Your task to perform on an android device: check data usage Image 0: 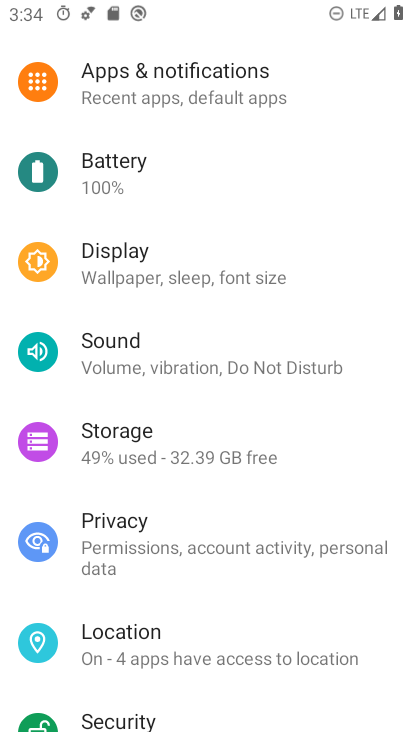
Step 0: drag from (233, 151) to (216, 614)
Your task to perform on an android device: check data usage Image 1: 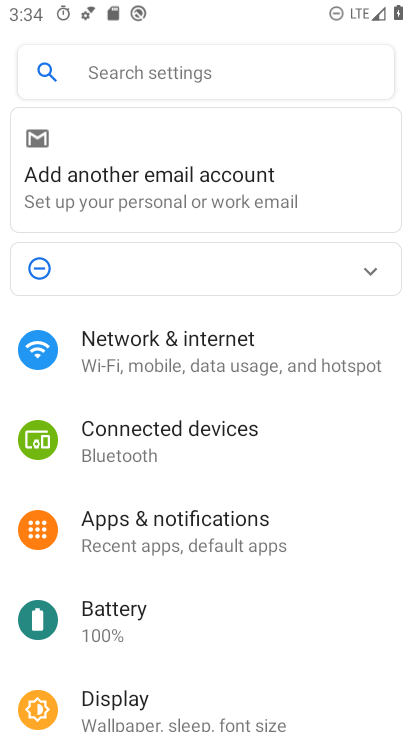
Step 1: click (132, 360)
Your task to perform on an android device: check data usage Image 2: 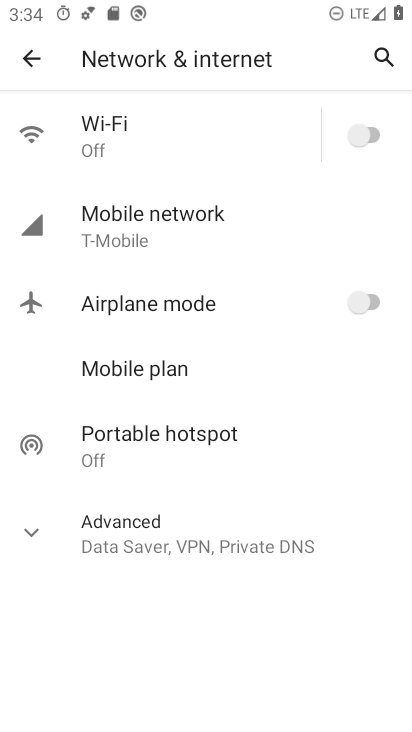
Step 2: click (126, 221)
Your task to perform on an android device: check data usage Image 3: 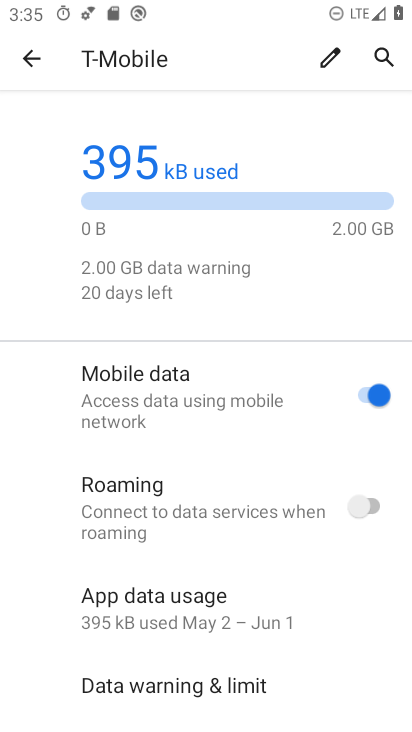
Step 3: click (158, 612)
Your task to perform on an android device: check data usage Image 4: 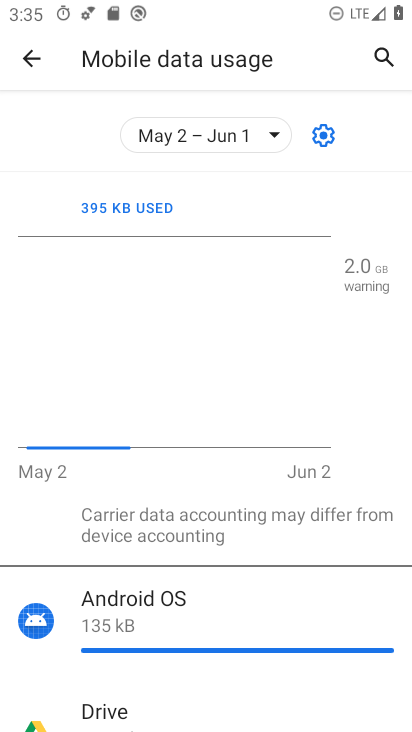
Step 4: task complete